Your task to perform on an android device: Turn on the flashlight Image 0: 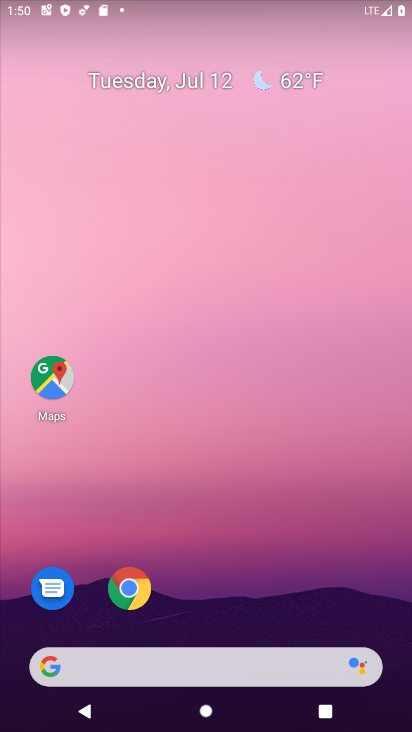
Step 0: drag from (270, 15) to (268, 529)
Your task to perform on an android device: Turn on the flashlight Image 1: 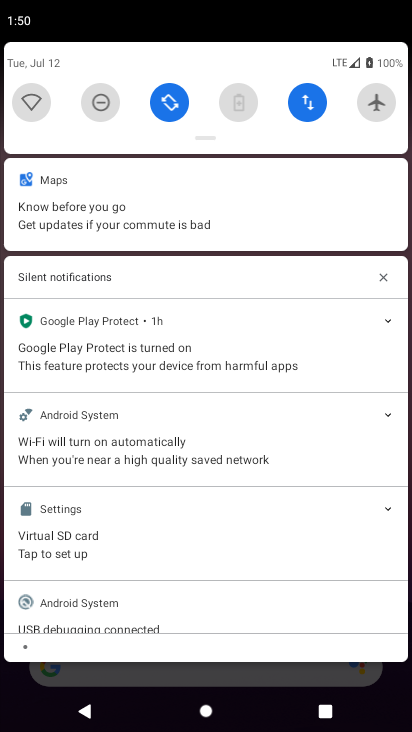
Step 1: click (322, 697)
Your task to perform on an android device: Turn on the flashlight Image 2: 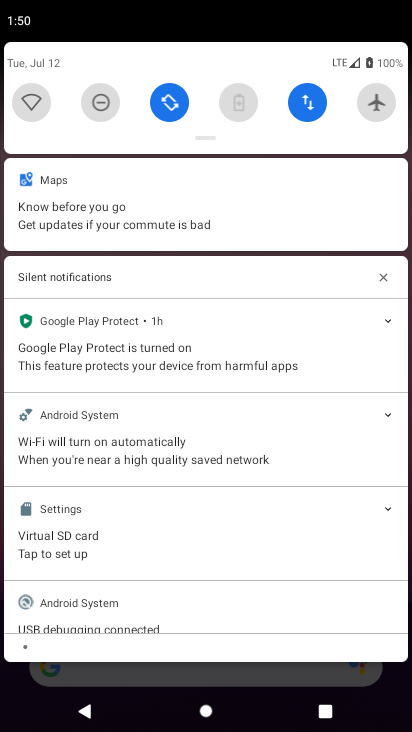
Step 2: task complete